Your task to perform on an android device: Search for "razer huntsman" on target.com, select the first entry, add it to the cart, then select checkout. Image 0: 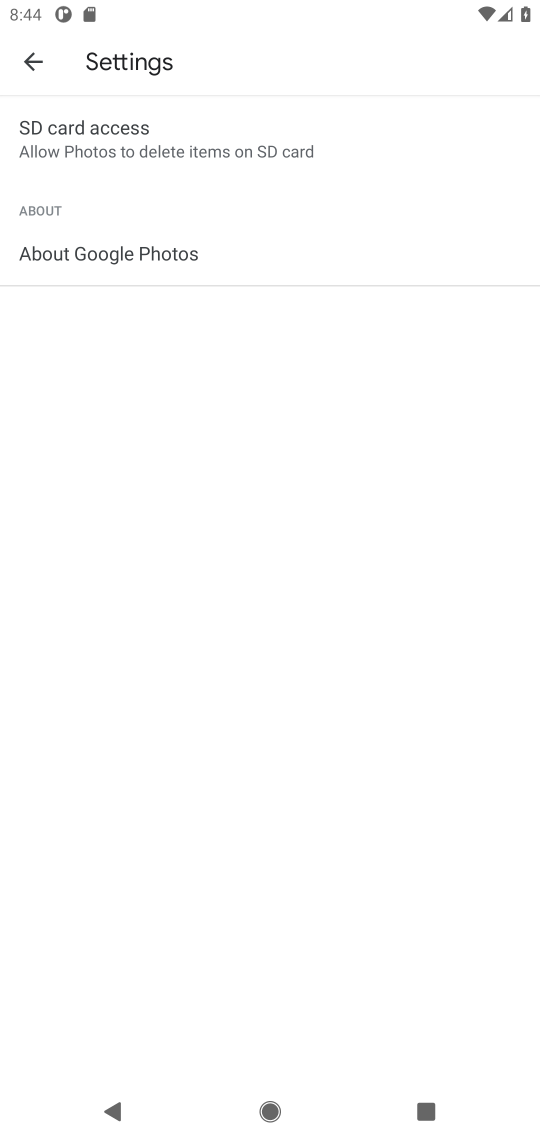
Step 0: press home button
Your task to perform on an android device: Search for "razer huntsman" on target.com, select the first entry, add it to the cart, then select checkout. Image 1: 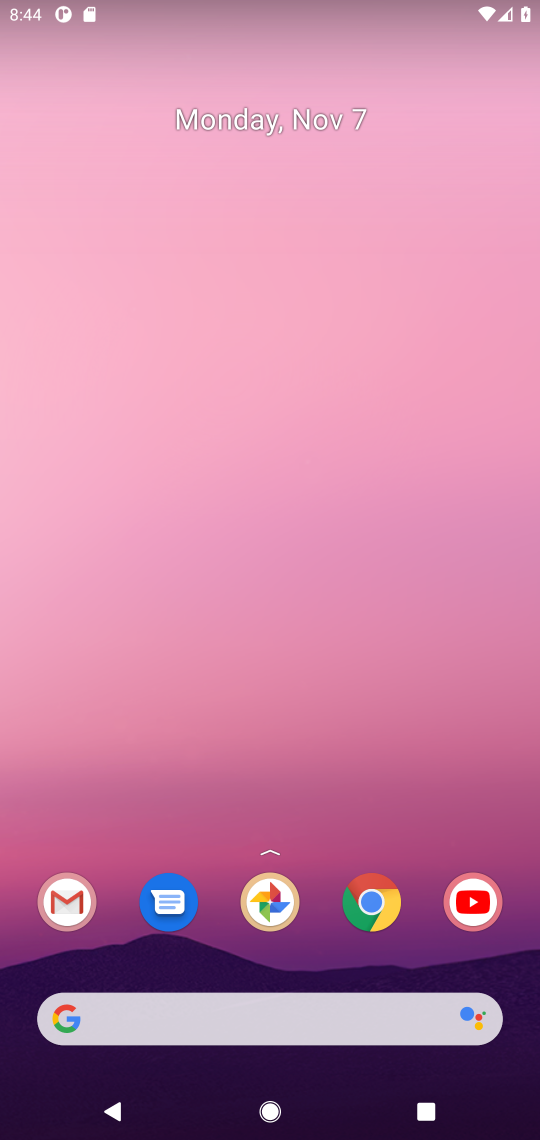
Step 1: click (381, 902)
Your task to perform on an android device: Search for "razer huntsman" on target.com, select the first entry, add it to the cart, then select checkout. Image 2: 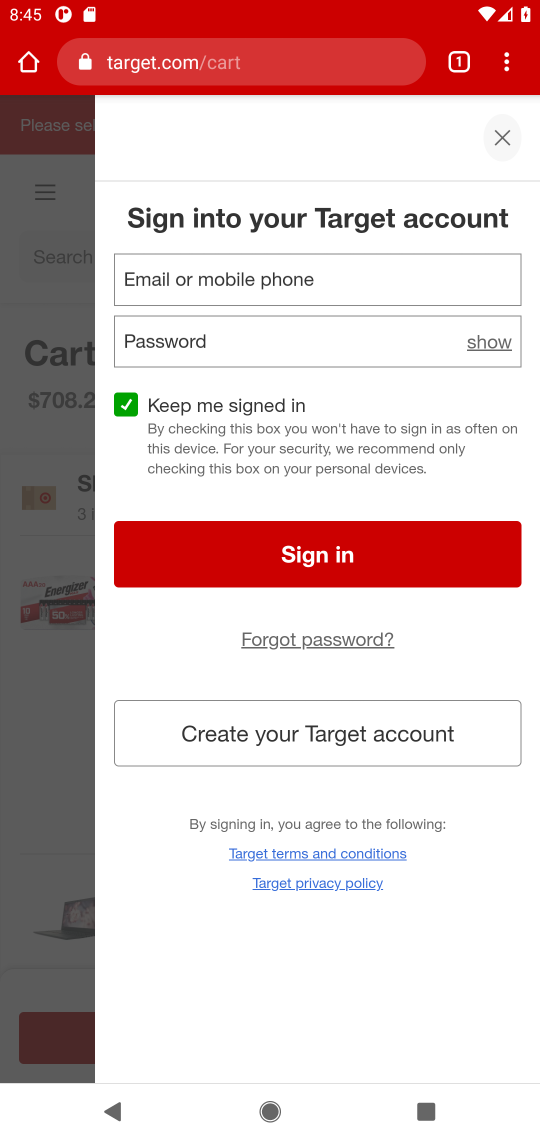
Step 2: press home button
Your task to perform on an android device: Search for "razer huntsman" on target.com, select the first entry, add it to the cart, then select checkout. Image 3: 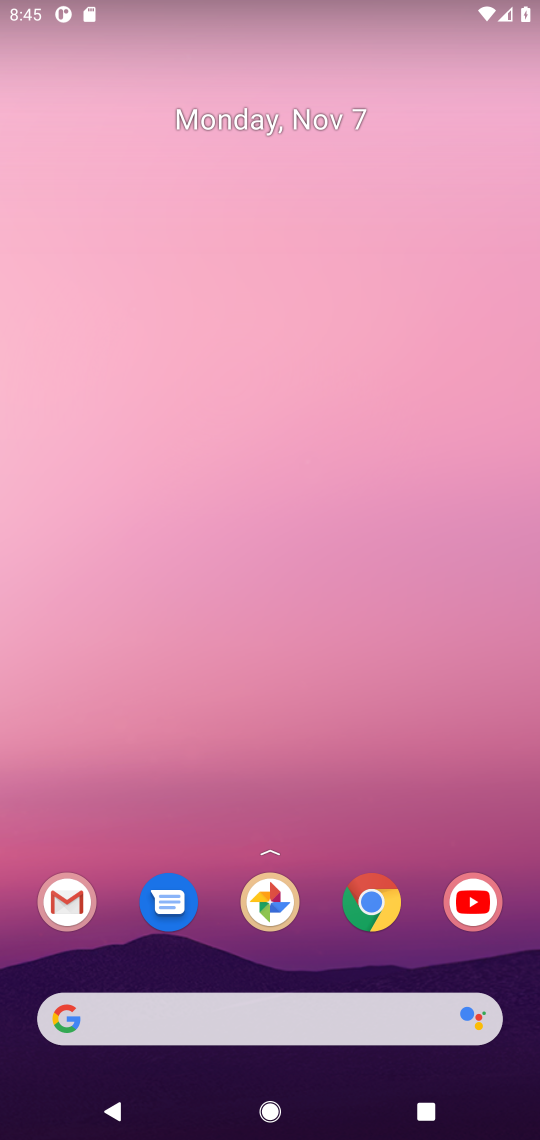
Step 3: click (366, 902)
Your task to perform on an android device: Search for "razer huntsman" on target.com, select the first entry, add it to the cart, then select checkout. Image 4: 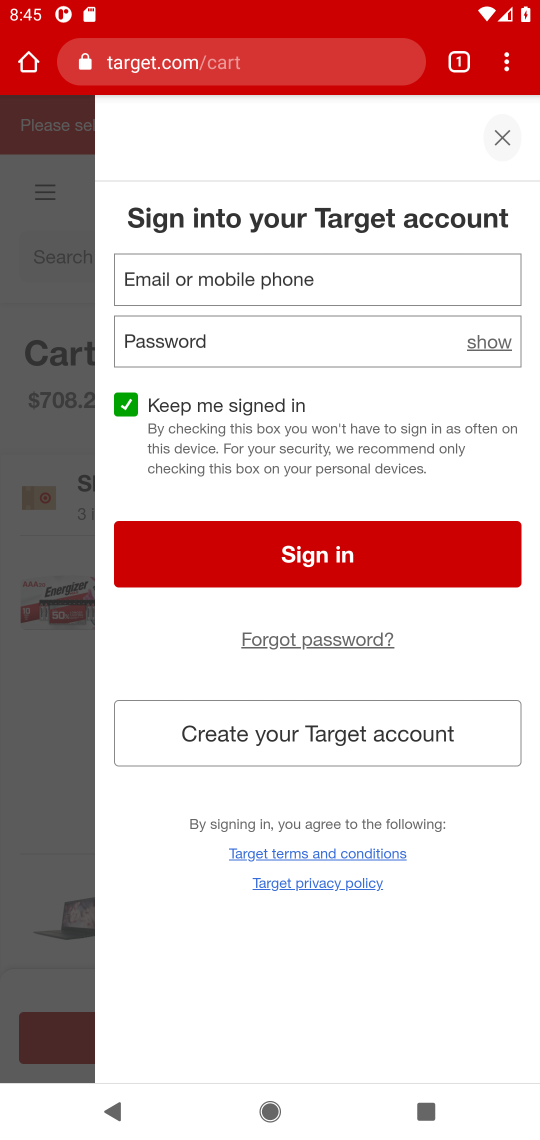
Step 4: click (506, 145)
Your task to perform on an android device: Search for "razer huntsman" on target.com, select the first entry, add it to the cart, then select checkout. Image 5: 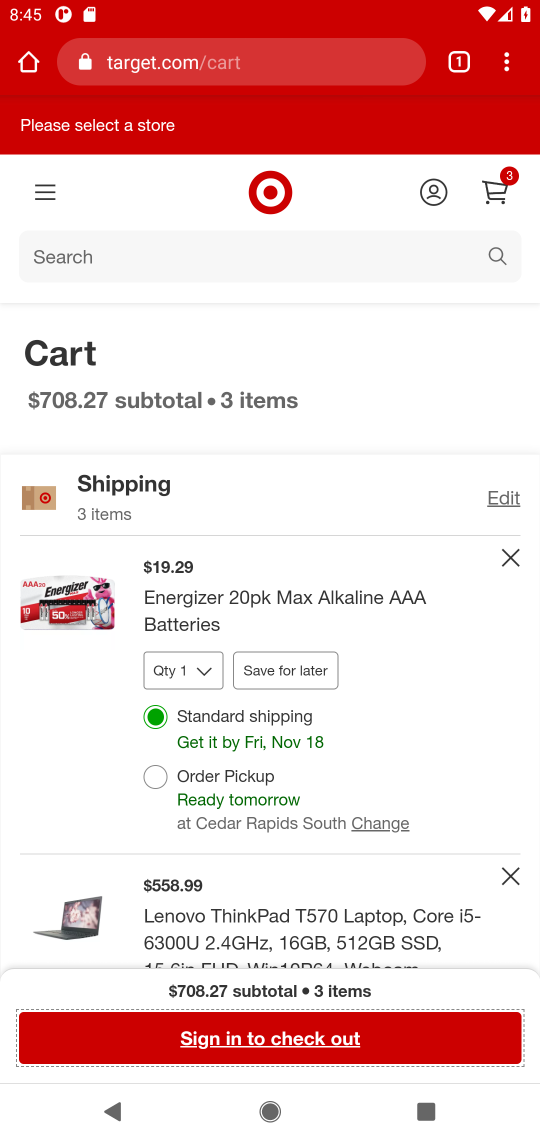
Step 5: click (498, 258)
Your task to perform on an android device: Search for "razer huntsman" on target.com, select the first entry, add it to the cart, then select checkout. Image 6: 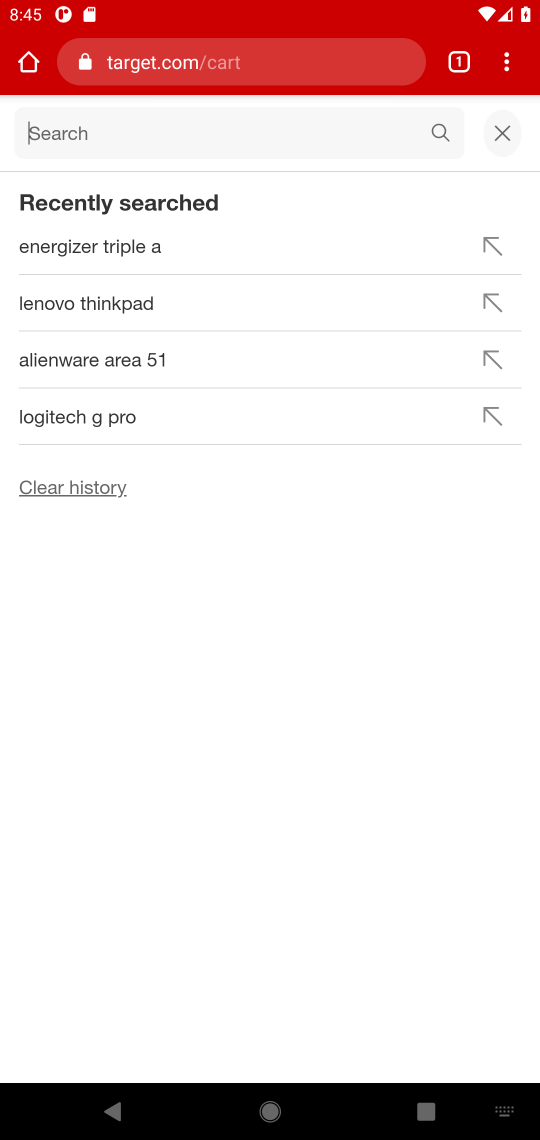
Step 6: type "razer huntsman"
Your task to perform on an android device: Search for "razer huntsman" on target.com, select the first entry, add it to the cart, then select checkout. Image 7: 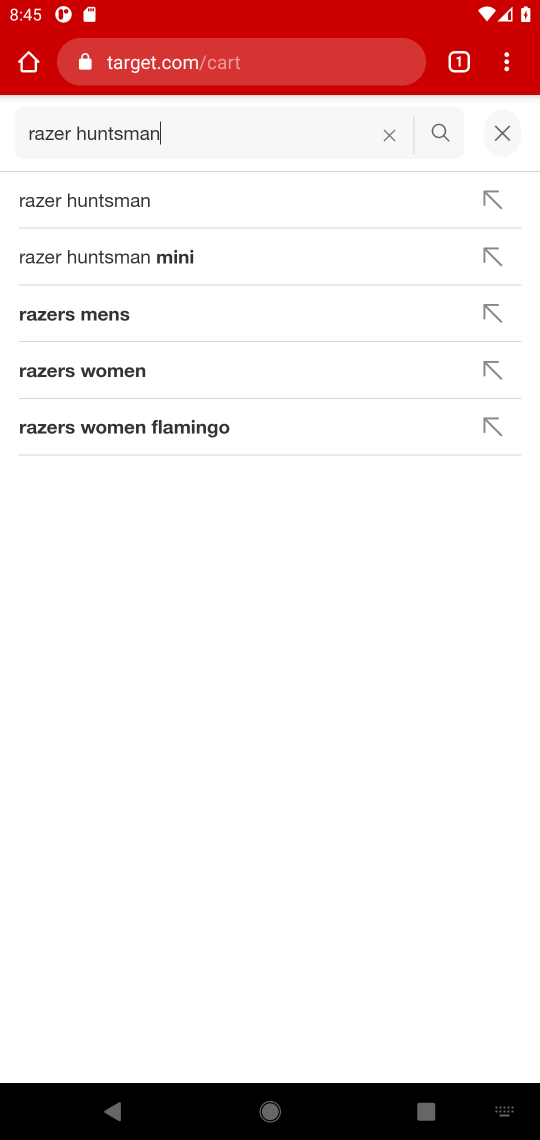
Step 7: click (53, 208)
Your task to perform on an android device: Search for "razer huntsman" on target.com, select the first entry, add it to the cart, then select checkout. Image 8: 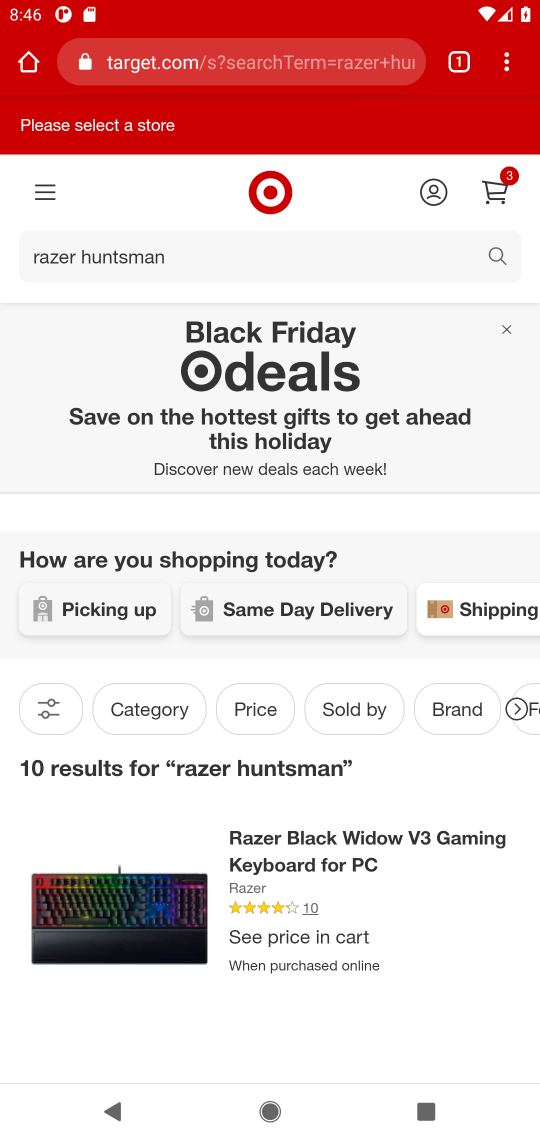
Step 8: task complete